Your task to perform on an android device: clear all cookies in the chrome app Image 0: 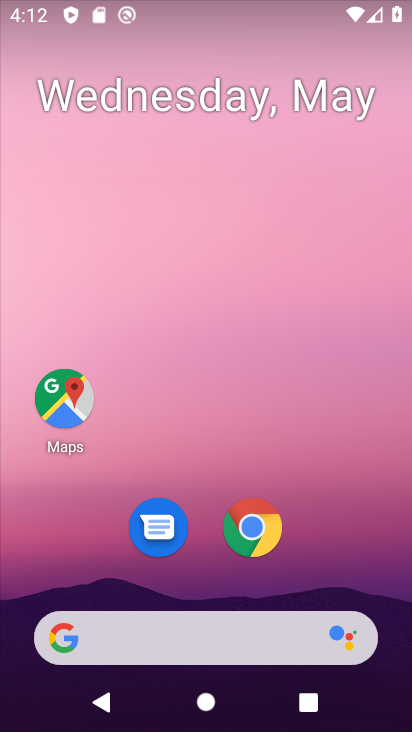
Step 0: drag from (302, 561) to (367, 89)
Your task to perform on an android device: clear all cookies in the chrome app Image 1: 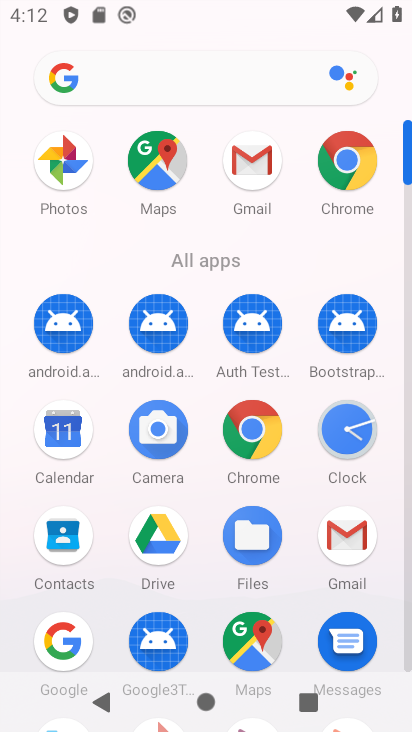
Step 1: click (328, 160)
Your task to perform on an android device: clear all cookies in the chrome app Image 2: 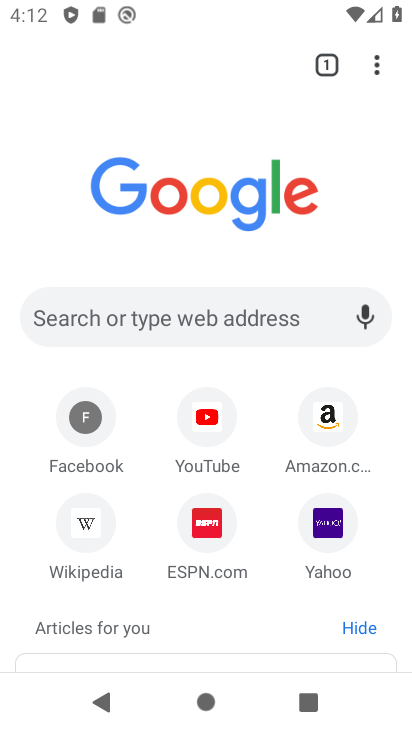
Step 2: drag from (376, 52) to (145, 536)
Your task to perform on an android device: clear all cookies in the chrome app Image 3: 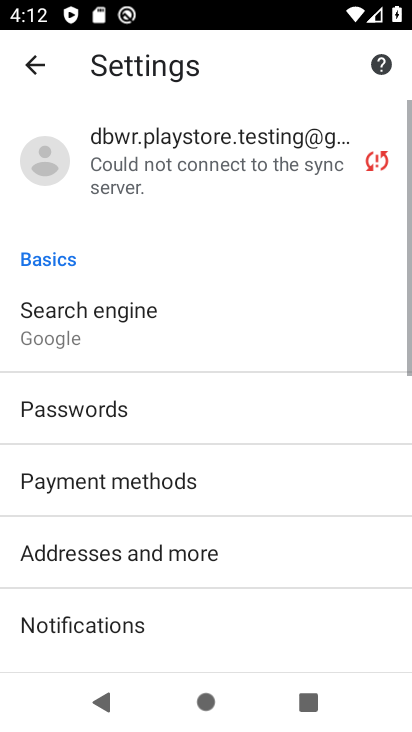
Step 3: drag from (164, 610) to (175, 148)
Your task to perform on an android device: clear all cookies in the chrome app Image 4: 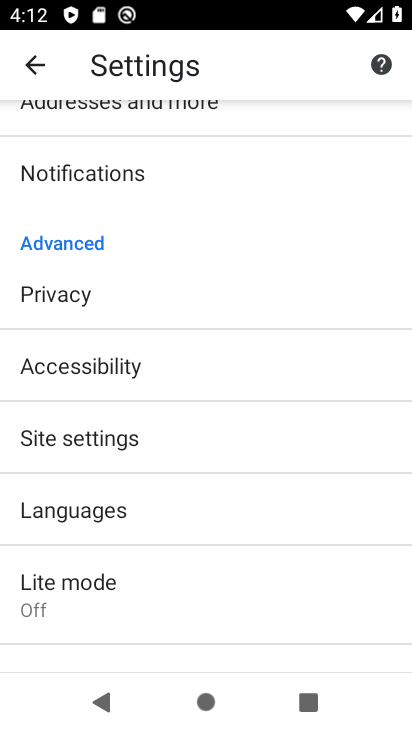
Step 4: click (89, 264)
Your task to perform on an android device: clear all cookies in the chrome app Image 5: 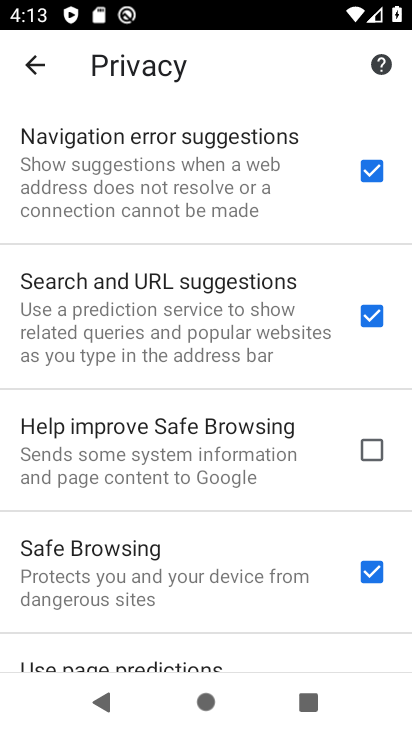
Step 5: drag from (168, 607) to (152, 25)
Your task to perform on an android device: clear all cookies in the chrome app Image 6: 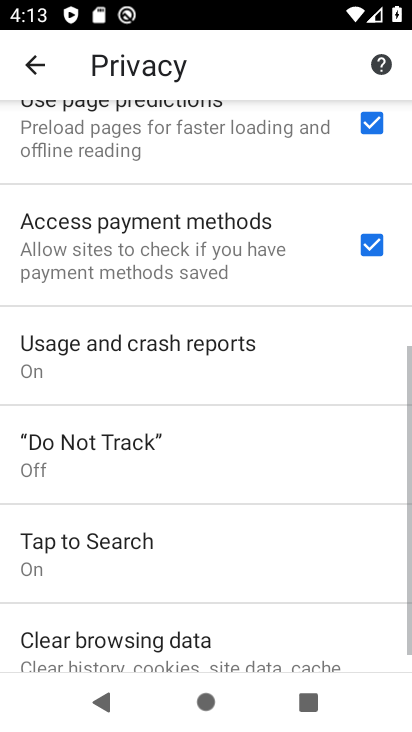
Step 6: drag from (208, 473) to (208, 62)
Your task to perform on an android device: clear all cookies in the chrome app Image 7: 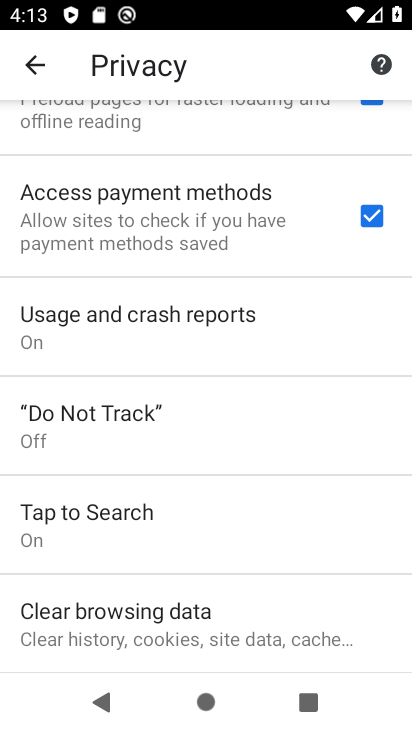
Step 7: click (196, 612)
Your task to perform on an android device: clear all cookies in the chrome app Image 8: 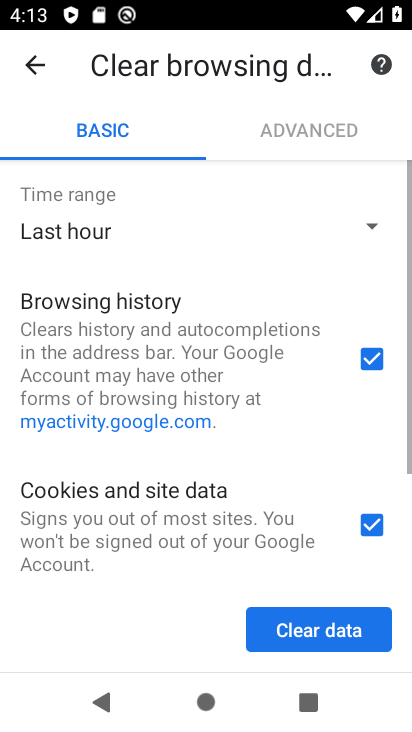
Step 8: click (307, 639)
Your task to perform on an android device: clear all cookies in the chrome app Image 9: 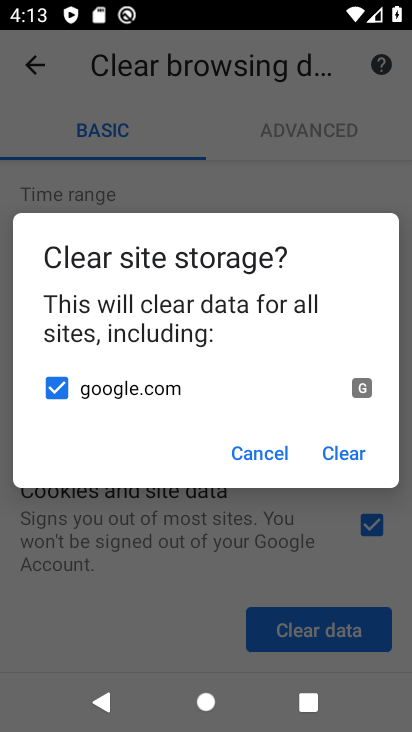
Step 9: click (327, 449)
Your task to perform on an android device: clear all cookies in the chrome app Image 10: 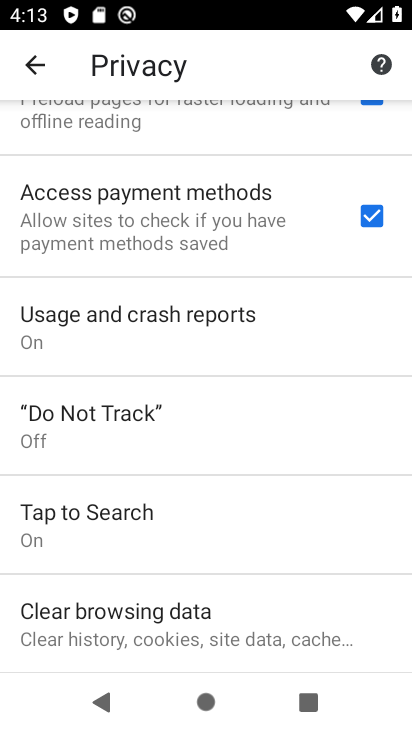
Step 10: task complete